Your task to perform on an android device: set the timer Image 0: 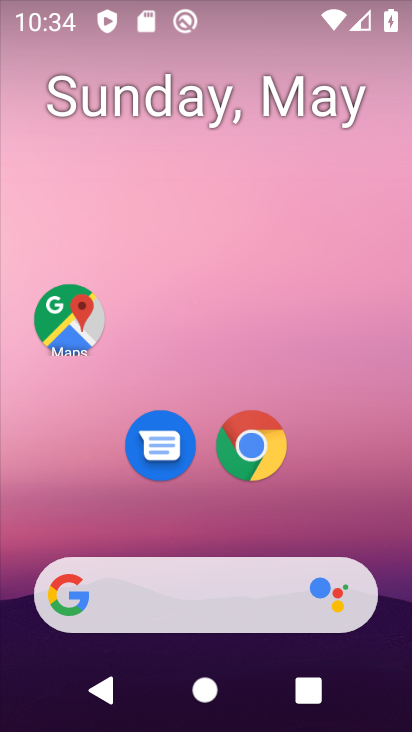
Step 0: drag from (98, 485) to (174, 36)
Your task to perform on an android device: set the timer Image 1: 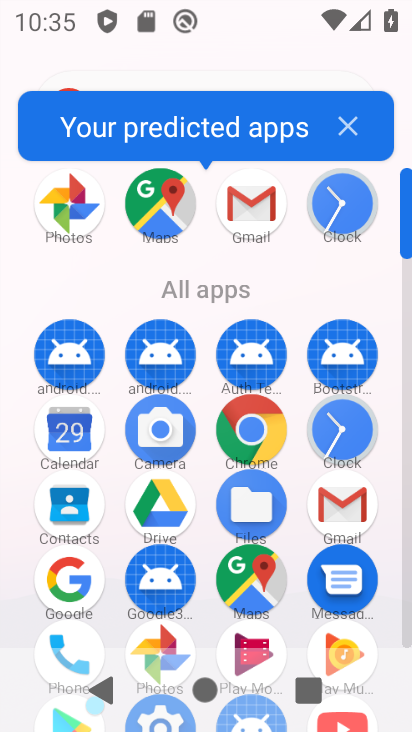
Step 1: click (358, 203)
Your task to perform on an android device: set the timer Image 2: 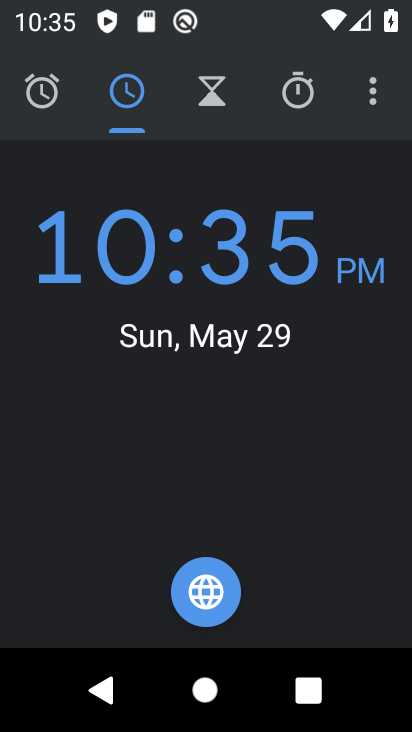
Step 2: click (383, 90)
Your task to perform on an android device: set the timer Image 3: 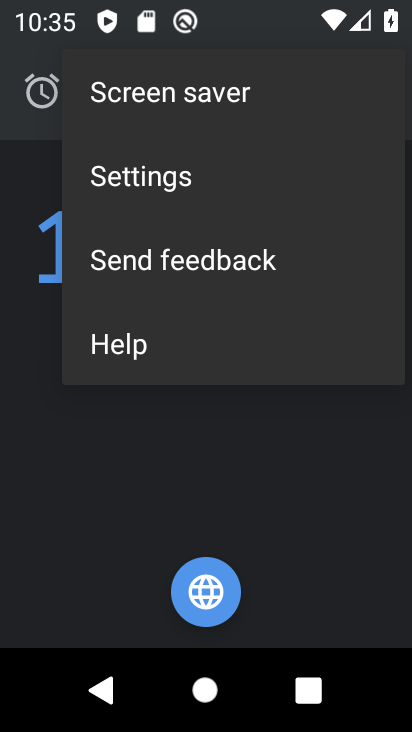
Step 3: click (222, 171)
Your task to perform on an android device: set the timer Image 4: 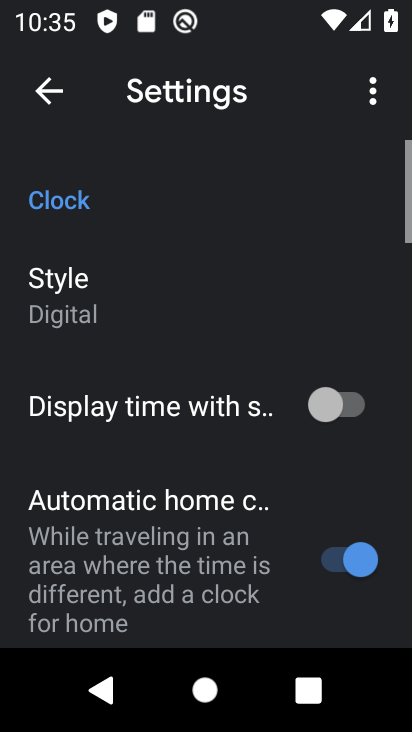
Step 4: drag from (144, 568) to (226, 276)
Your task to perform on an android device: set the timer Image 5: 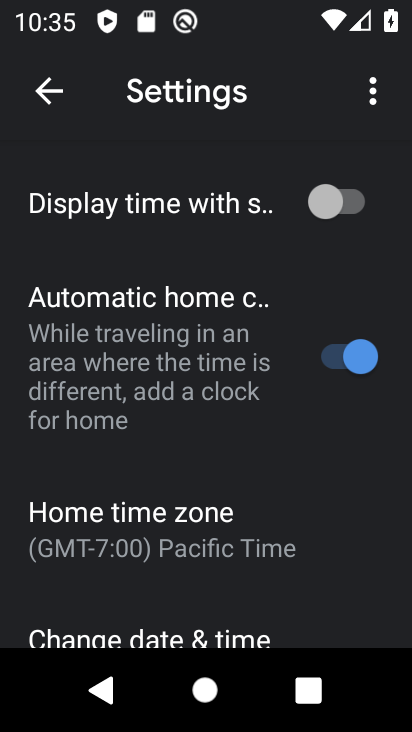
Step 5: click (46, 81)
Your task to perform on an android device: set the timer Image 6: 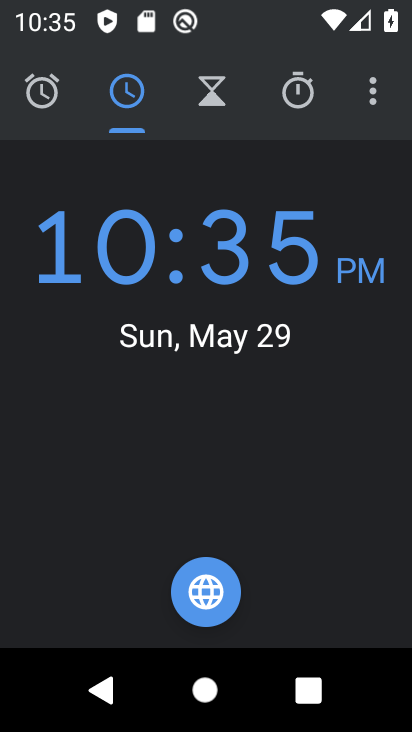
Step 6: click (204, 90)
Your task to perform on an android device: set the timer Image 7: 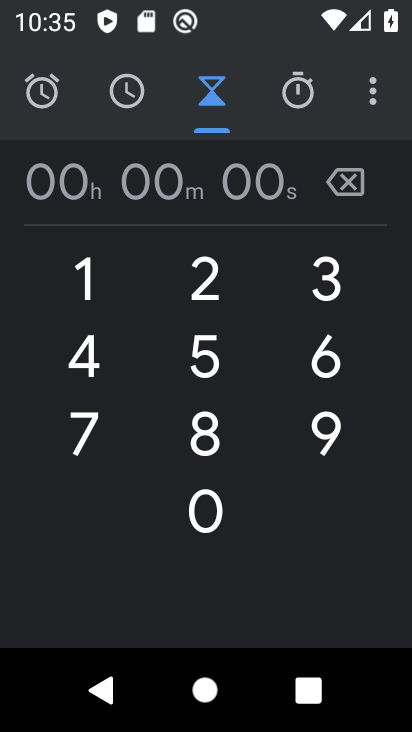
Step 7: click (227, 285)
Your task to perform on an android device: set the timer Image 8: 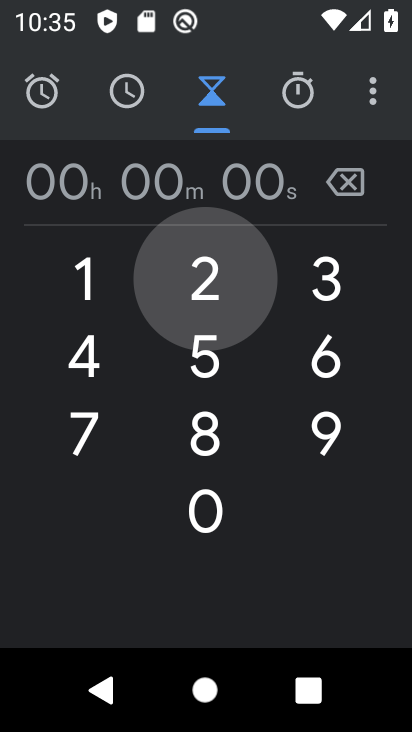
Step 8: click (318, 273)
Your task to perform on an android device: set the timer Image 9: 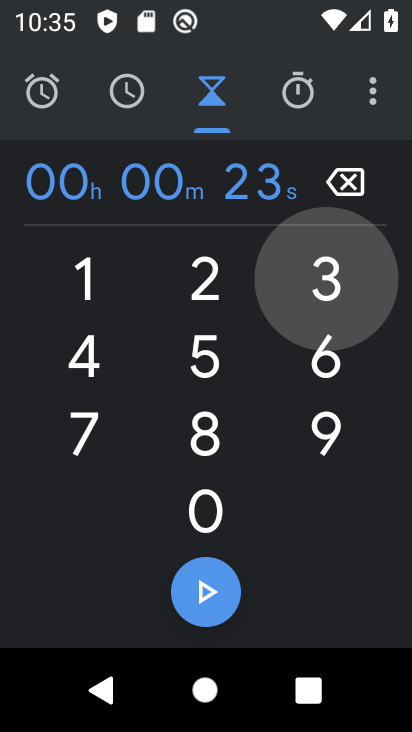
Step 9: click (187, 328)
Your task to perform on an android device: set the timer Image 10: 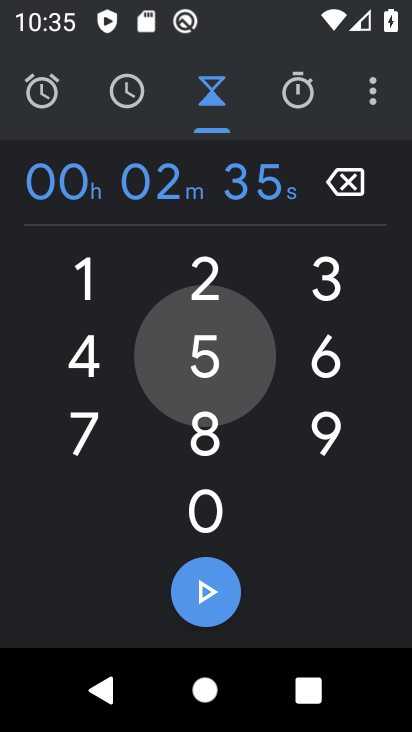
Step 10: click (304, 353)
Your task to perform on an android device: set the timer Image 11: 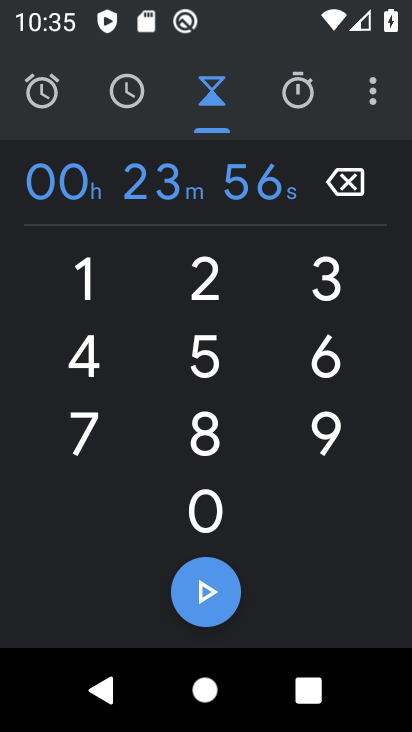
Step 11: task complete